Your task to perform on an android device: turn off priority inbox in the gmail app Image 0: 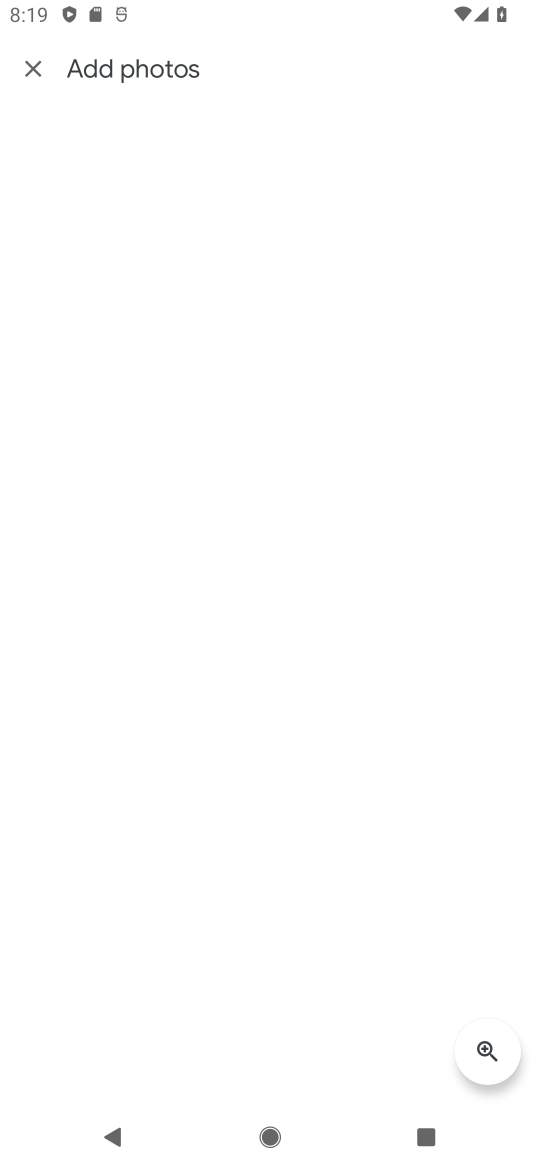
Step 0: press home button
Your task to perform on an android device: turn off priority inbox in the gmail app Image 1: 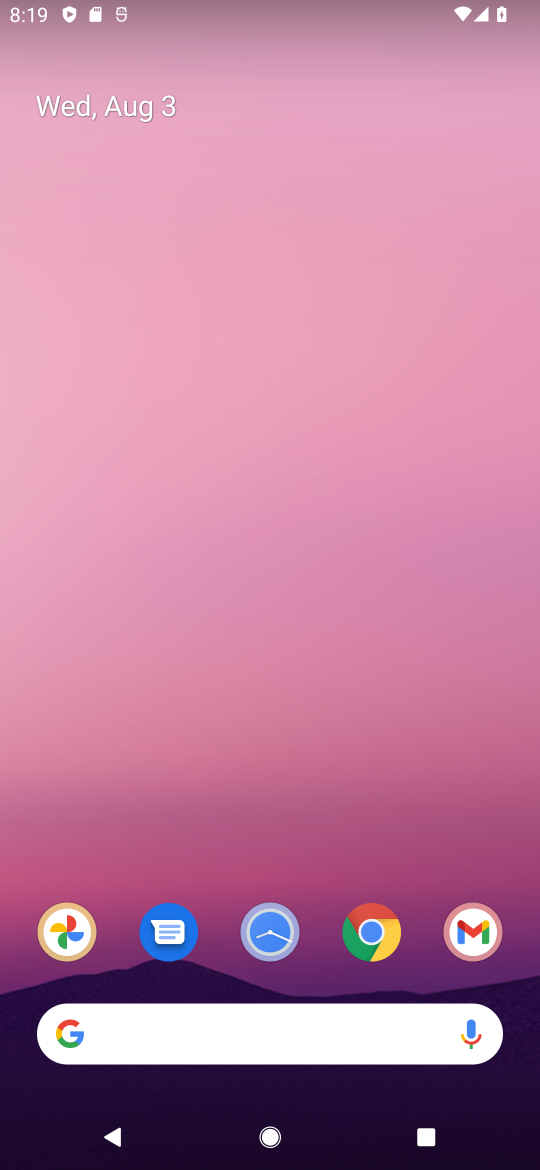
Step 1: drag from (230, 969) to (124, 248)
Your task to perform on an android device: turn off priority inbox in the gmail app Image 2: 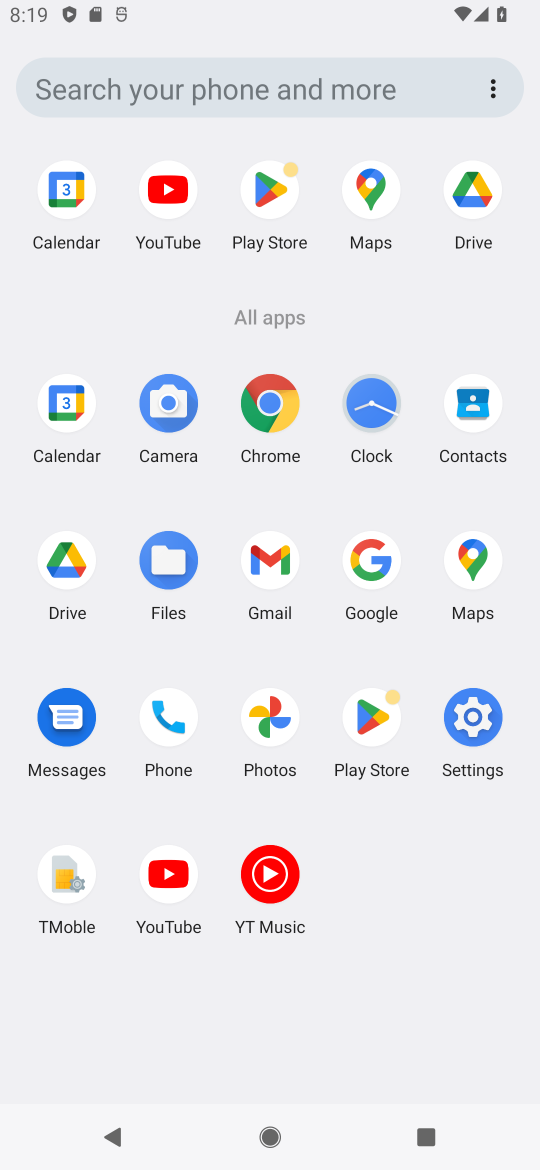
Step 2: click (273, 561)
Your task to perform on an android device: turn off priority inbox in the gmail app Image 3: 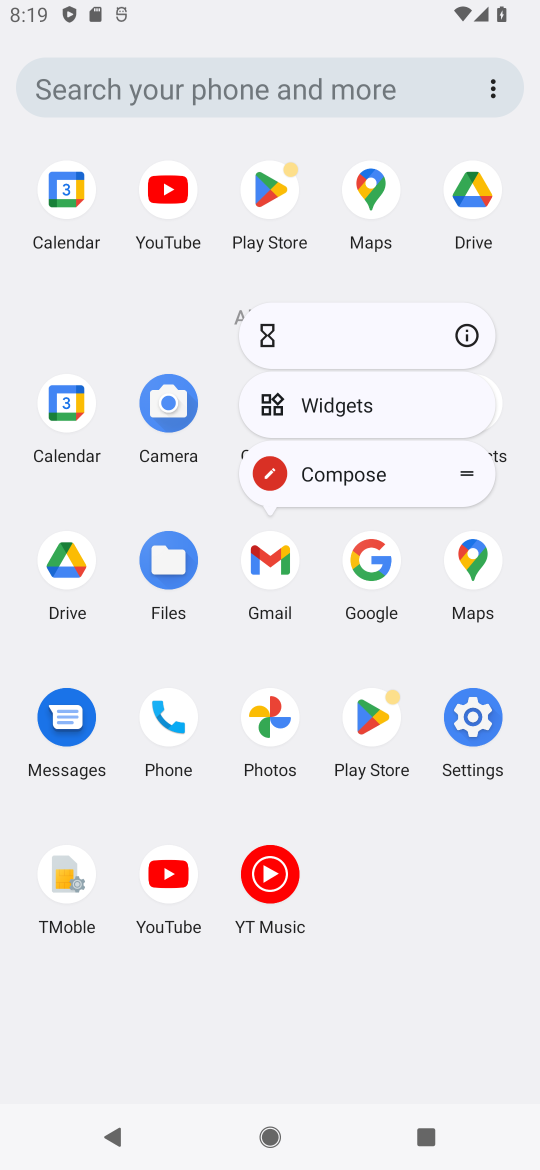
Step 3: click (256, 562)
Your task to perform on an android device: turn off priority inbox in the gmail app Image 4: 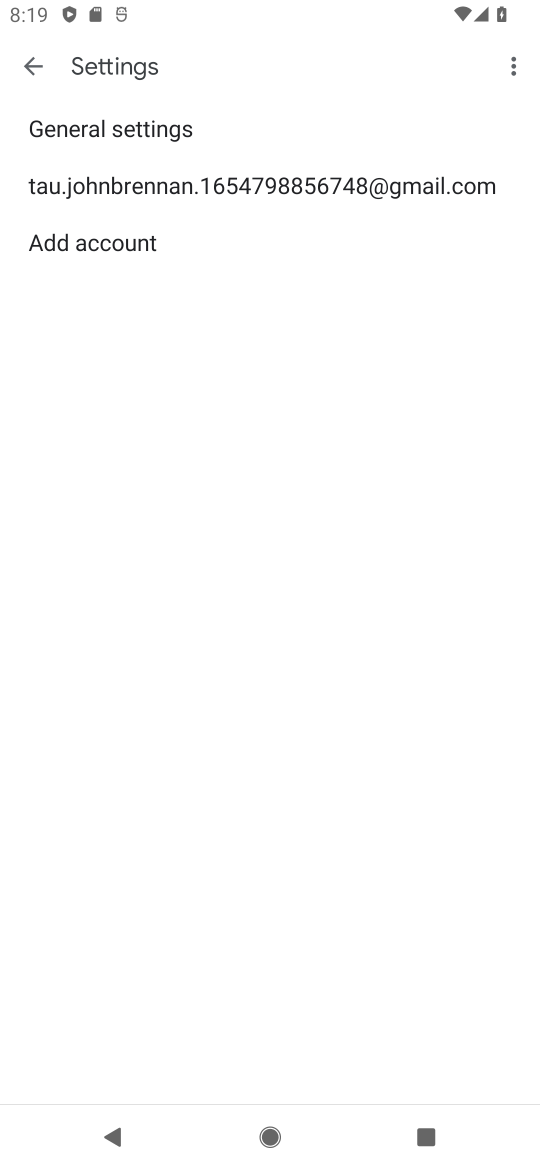
Step 4: click (79, 167)
Your task to perform on an android device: turn off priority inbox in the gmail app Image 5: 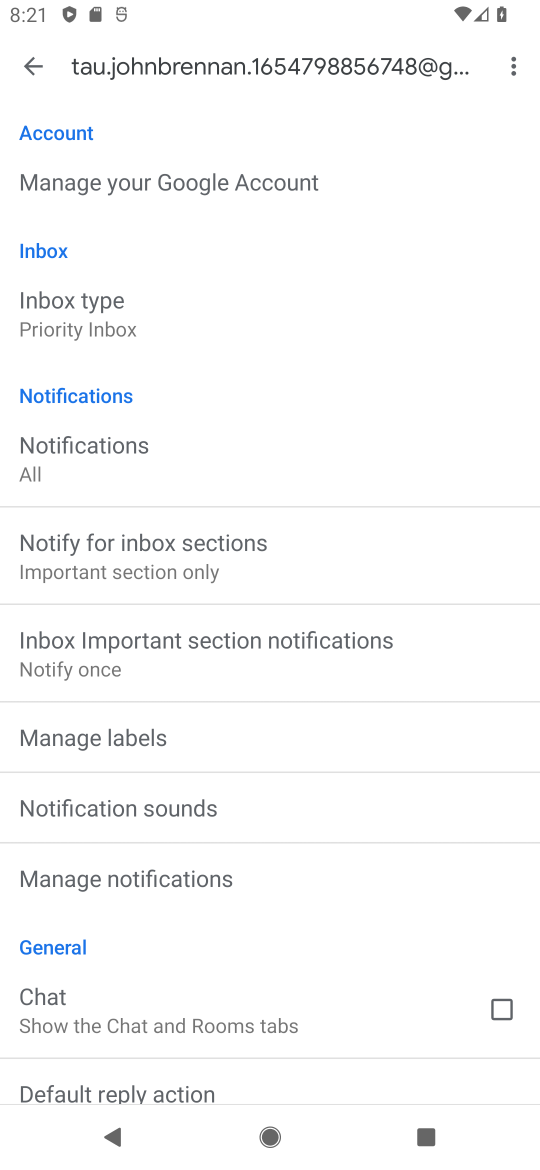
Step 5: task complete